Your task to perform on an android device: Go to calendar. Show me events next week Image 0: 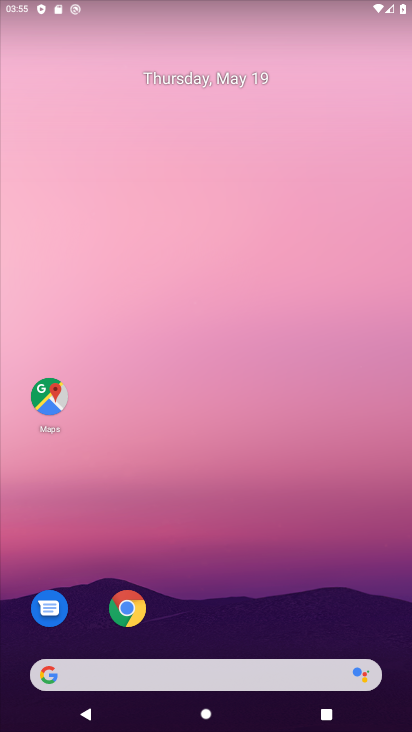
Step 0: drag from (238, 591) to (170, 143)
Your task to perform on an android device: Go to calendar. Show me events next week Image 1: 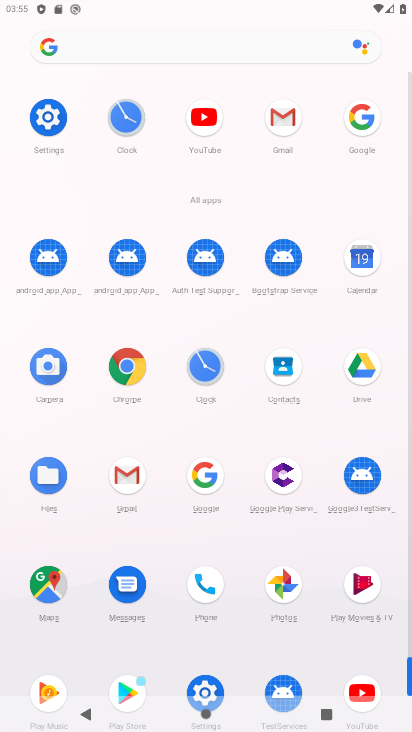
Step 1: click (363, 257)
Your task to perform on an android device: Go to calendar. Show me events next week Image 2: 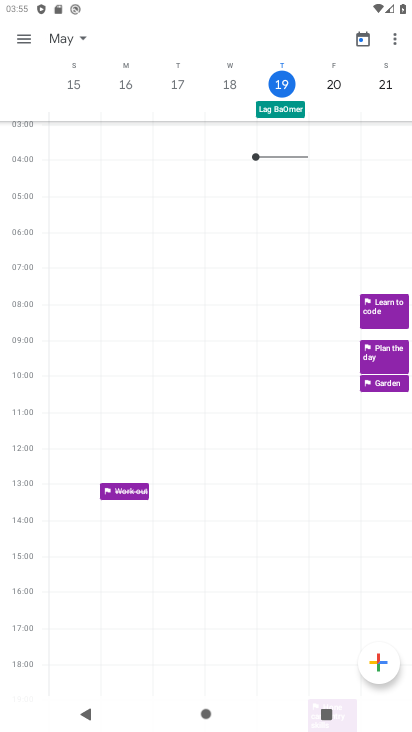
Step 2: click (367, 42)
Your task to perform on an android device: Go to calendar. Show me events next week Image 3: 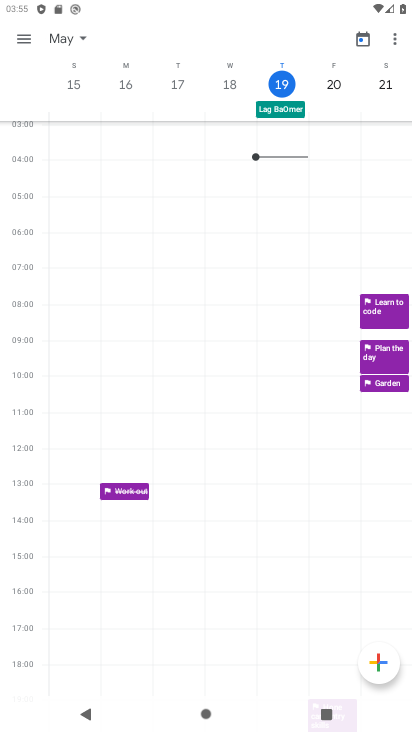
Step 3: click (80, 40)
Your task to perform on an android device: Go to calendar. Show me events next week Image 4: 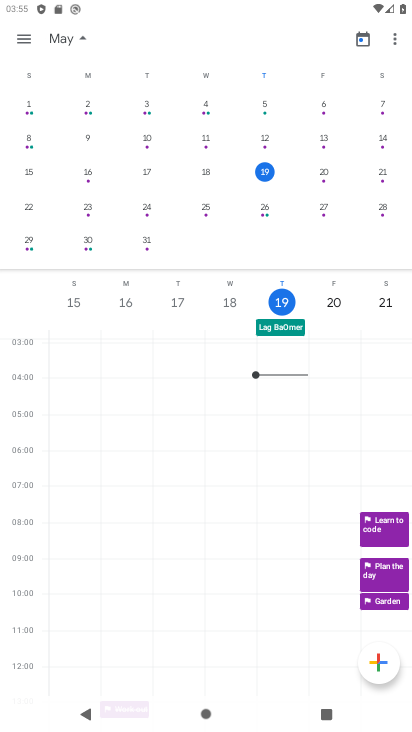
Step 4: click (87, 208)
Your task to perform on an android device: Go to calendar. Show me events next week Image 5: 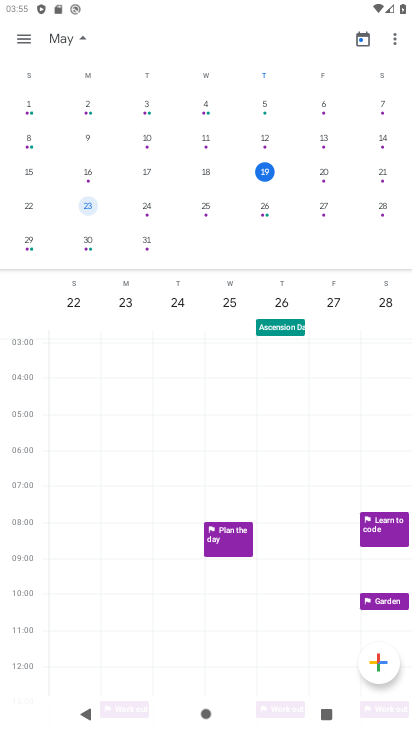
Step 5: click (19, 38)
Your task to perform on an android device: Go to calendar. Show me events next week Image 6: 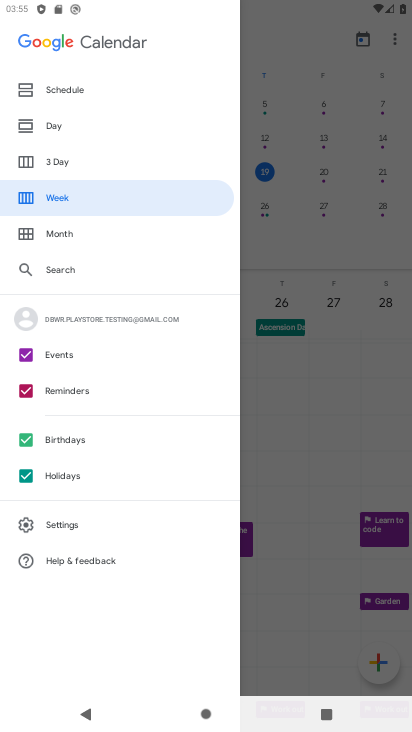
Step 6: click (63, 194)
Your task to perform on an android device: Go to calendar. Show me events next week Image 7: 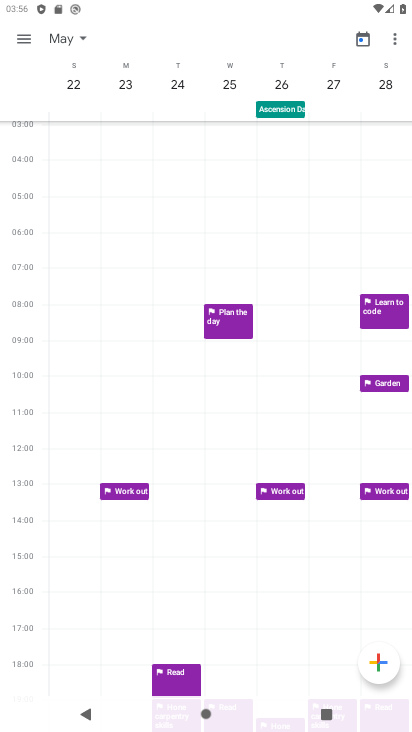
Step 7: task complete